Your task to perform on an android device: Show me the alarms in the clock app Image 0: 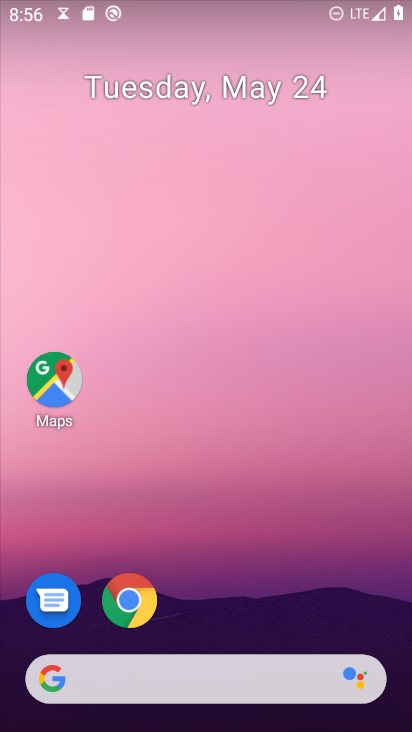
Step 0: drag from (212, 621) to (290, 105)
Your task to perform on an android device: Show me the alarms in the clock app Image 1: 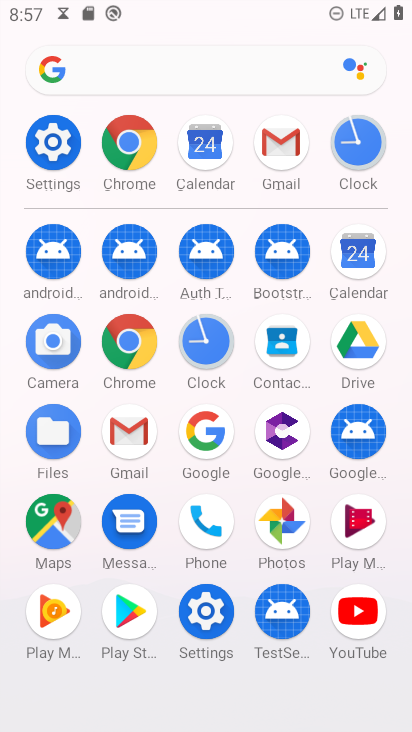
Step 1: click (207, 341)
Your task to perform on an android device: Show me the alarms in the clock app Image 2: 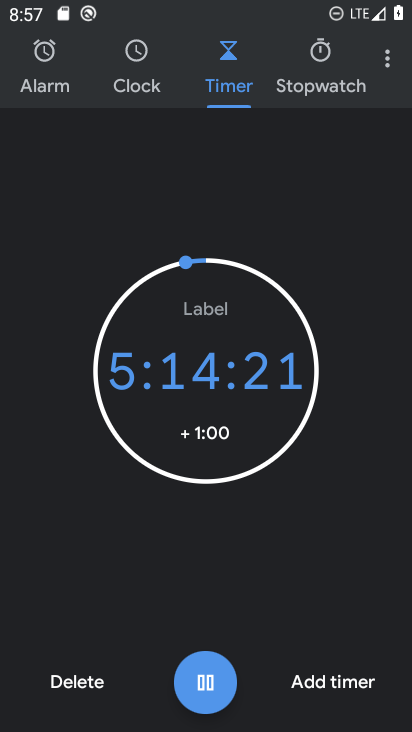
Step 2: click (47, 67)
Your task to perform on an android device: Show me the alarms in the clock app Image 3: 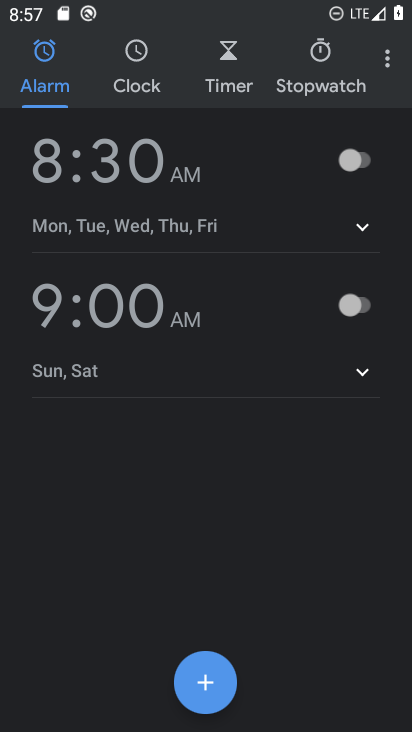
Step 3: task complete